Your task to perform on an android device: toggle priority inbox in the gmail app Image 0: 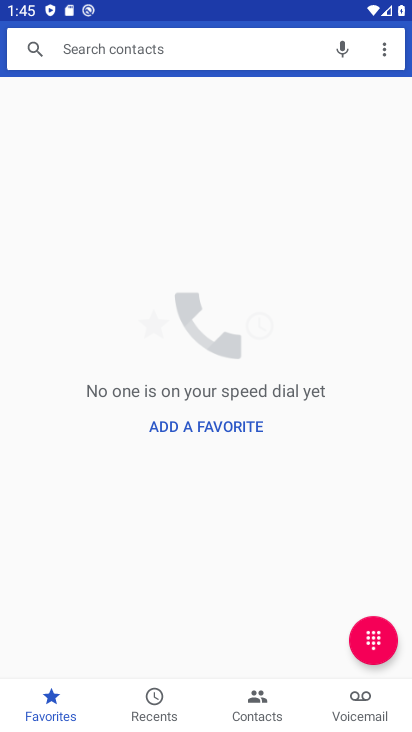
Step 0: press home button
Your task to perform on an android device: toggle priority inbox in the gmail app Image 1: 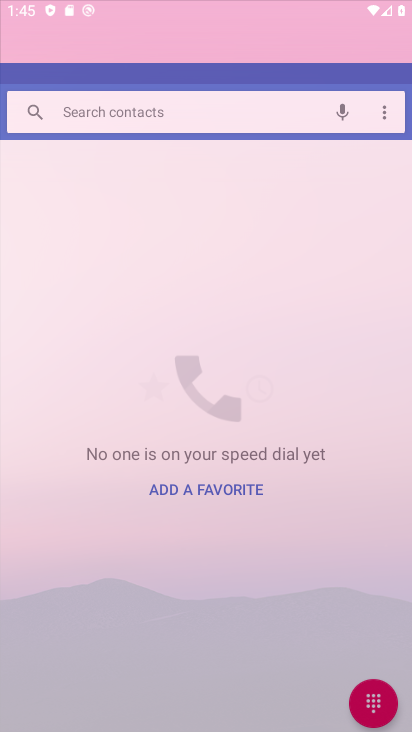
Step 1: press home button
Your task to perform on an android device: toggle priority inbox in the gmail app Image 2: 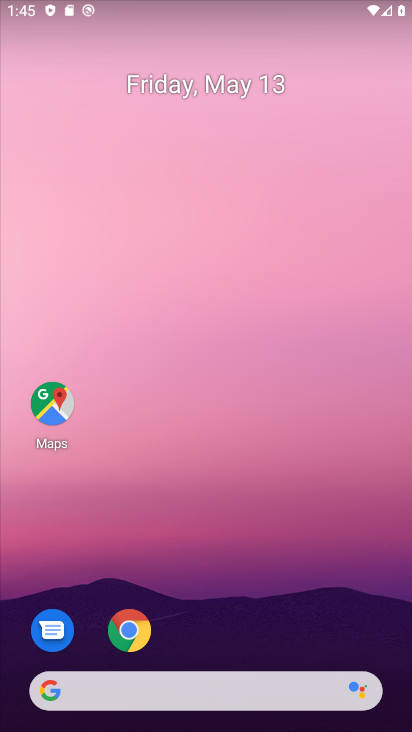
Step 2: drag from (284, 630) to (278, 20)
Your task to perform on an android device: toggle priority inbox in the gmail app Image 3: 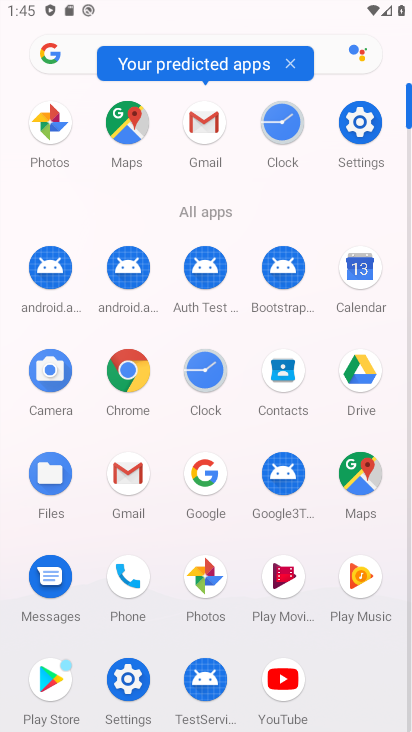
Step 3: click (121, 474)
Your task to perform on an android device: toggle priority inbox in the gmail app Image 4: 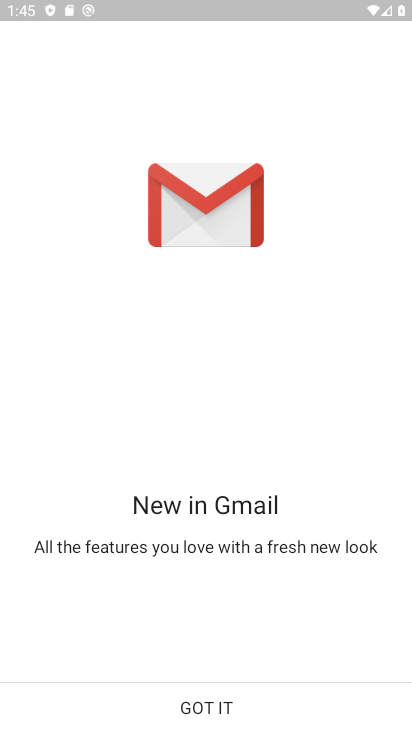
Step 4: click (228, 692)
Your task to perform on an android device: toggle priority inbox in the gmail app Image 5: 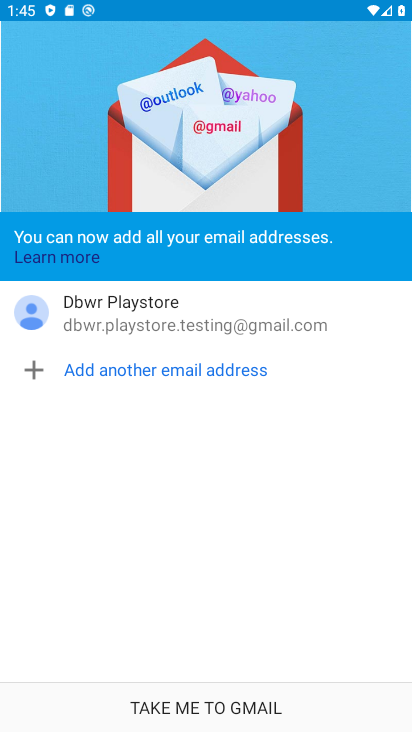
Step 5: click (200, 712)
Your task to perform on an android device: toggle priority inbox in the gmail app Image 6: 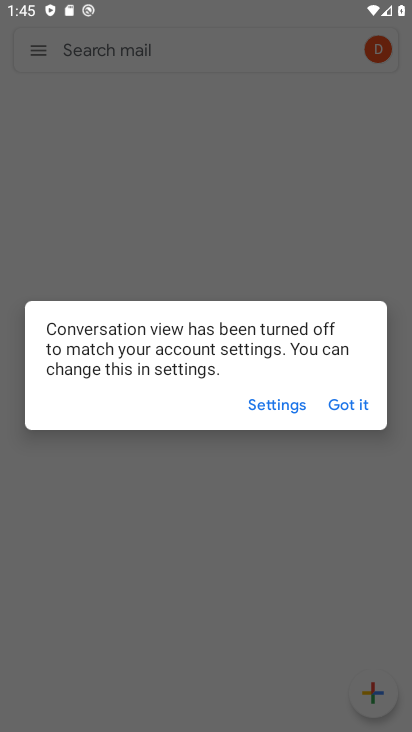
Step 6: click (320, 396)
Your task to perform on an android device: toggle priority inbox in the gmail app Image 7: 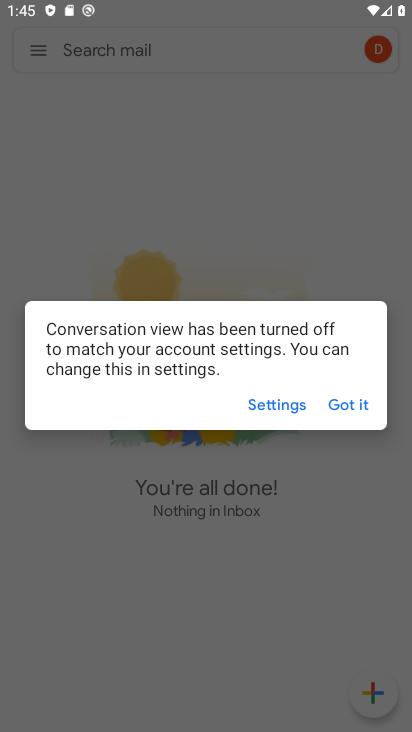
Step 7: click (342, 395)
Your task to perform on an android device: toggle priority inbox in the gmail app Image 8: 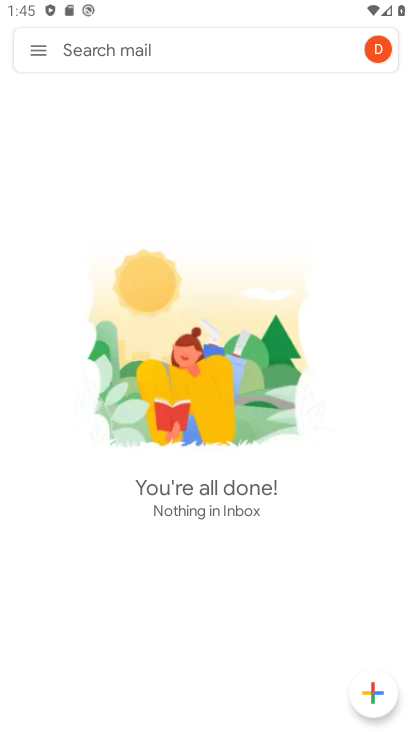
Step 8: click (43, 54)
Your task to perform on an android device: toggle priority inbox in the gmail app Image 9: 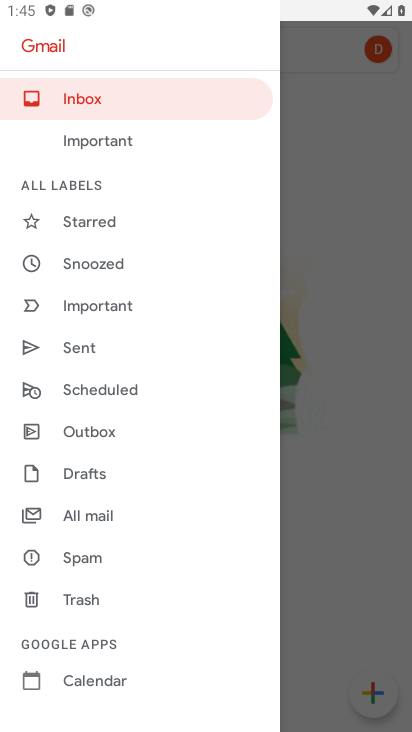
Step 9: drag from (140, 592) to (172, 283)
Your task to perform on an android device: toggle priority inbox in the gmail app Image 10: 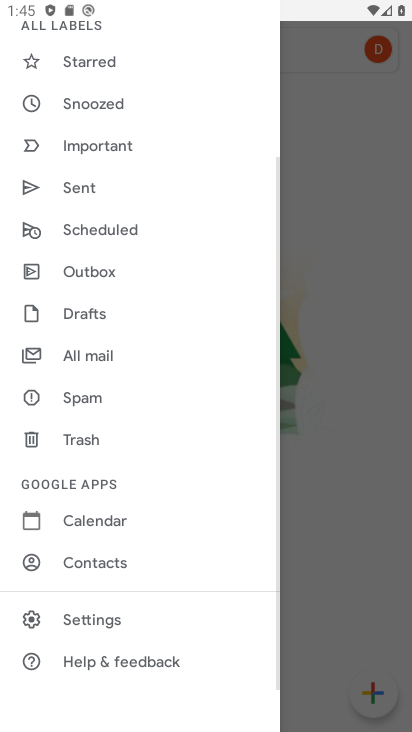
Step 10: click (102, 613)
Your task to perform on an android device: toggle priority inbox in the gmail app Image 11: 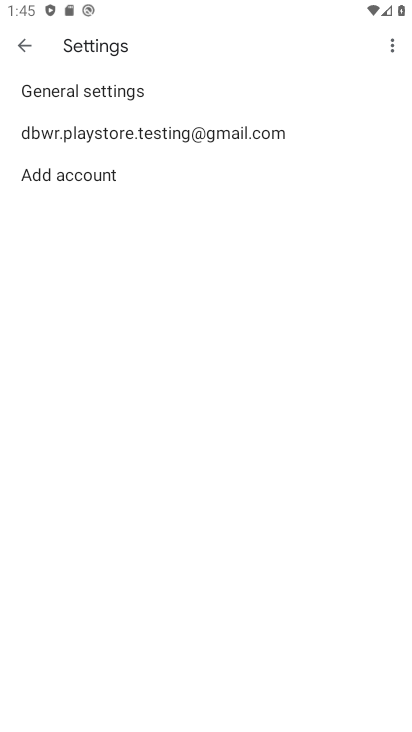
Step 11: click (195, 142)
Your task to perform on an android device: toggle priority inbox in the gmail app Image 12: 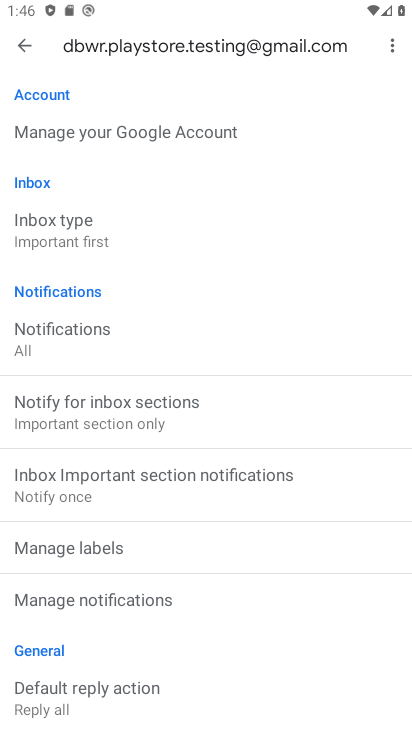
Step 12: click (68, 218)
Your task to perform on an android device: toggle priority inbox in the gmail app Image 13: 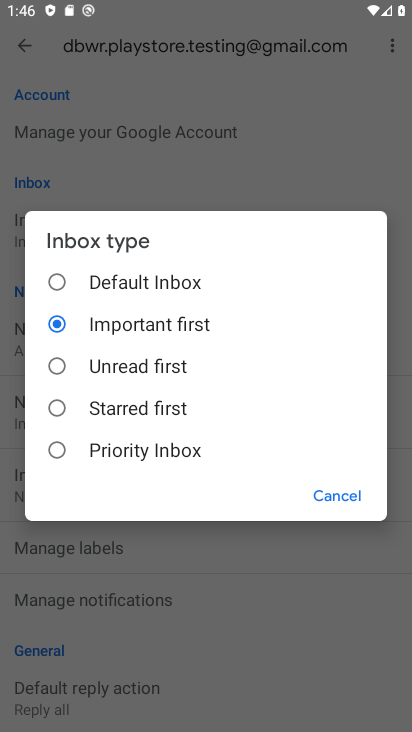
Step 13: click (115, 452)
Your task to perform on an android device: toggle priority inbox in the gmail app Image 14: 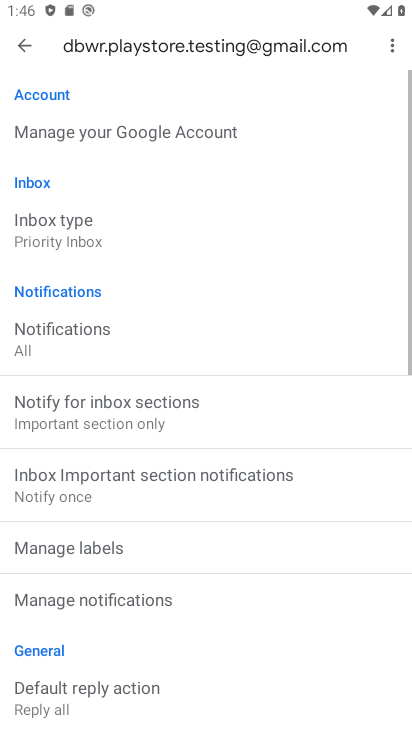
Step 14: task complete